Your task to perform on an android device: create a new album in the google photos Image 0: 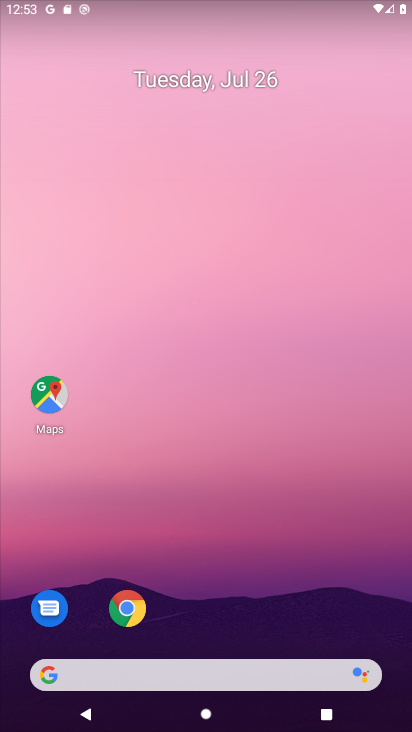
Step 0: drag from (255, 542) to (176, 55)
Your task to perform on an android device: create a new album in the google photos Image 1: 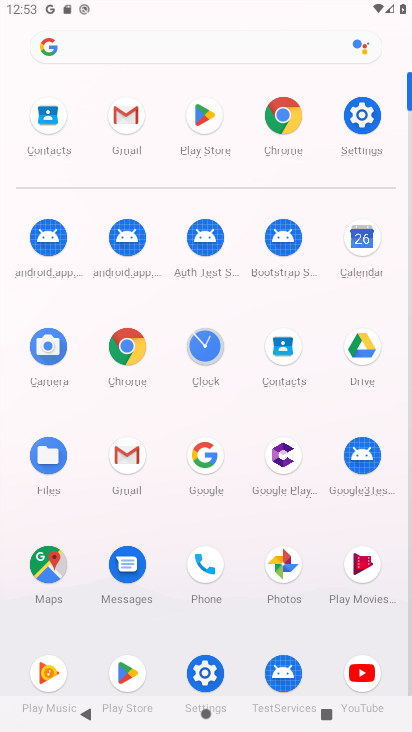
Step 1: click (282, 567)
Your task to perform on an android device: create a new album in the google photos Image 2: 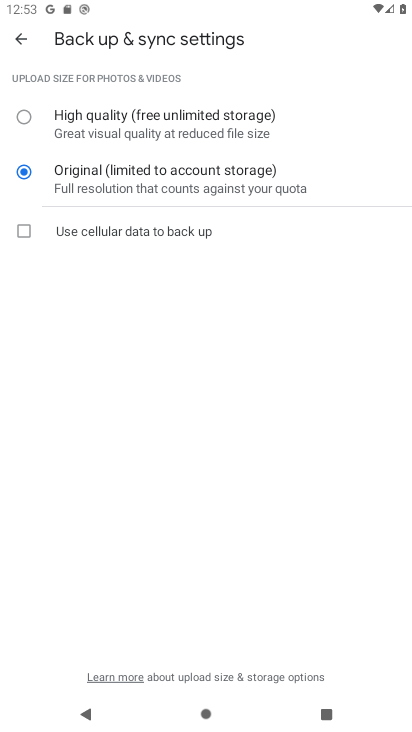
Step 2: click (24, 34)
Your task to perform on an android device: create a new album in the google photos Image 3: 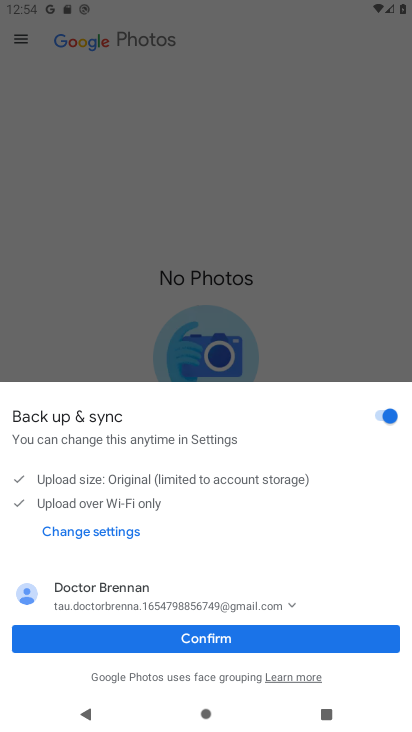
Step 3: click (230, 165)
Your task to perform on an android device: create a new album in the google photos Image 4: 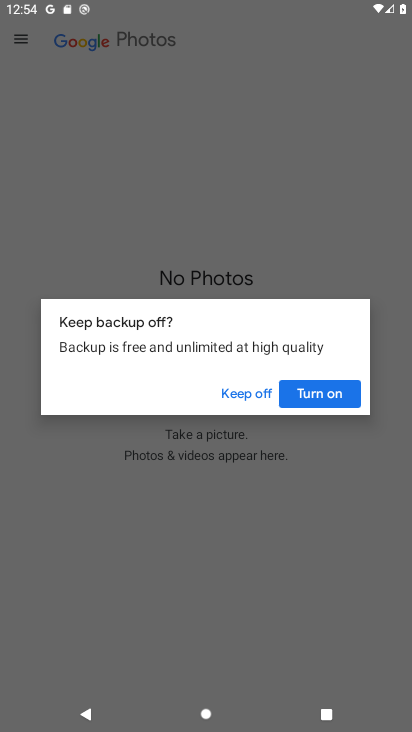
Step 4: click (325, 397)
Your task to perform on an android device: create a new album in the google photos Image 5: 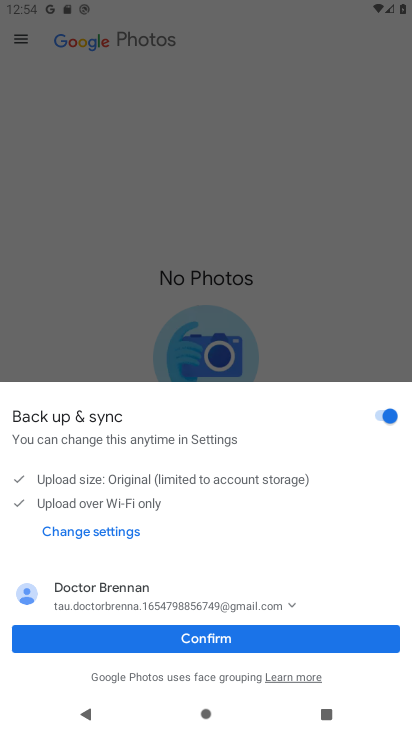
Step 5: click (162, 640)
Your task to perform on an android device: create a new album in the google photos Image 6: 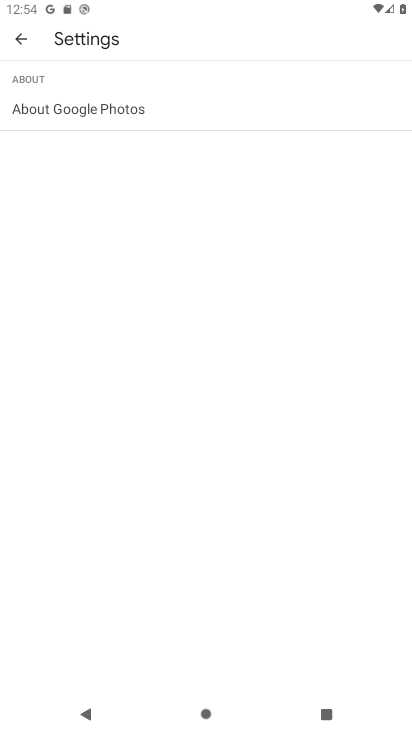
Step 6: task complete